Your task to perform on an android device: Set the phone to "Do not disturb". Image 0: 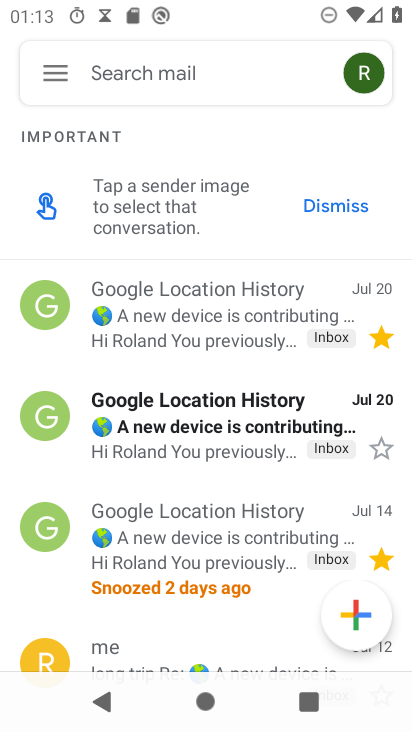
Step 0: press home button
Your task to perform on an android device: Set the phone to "Do not disturb". Image 1: 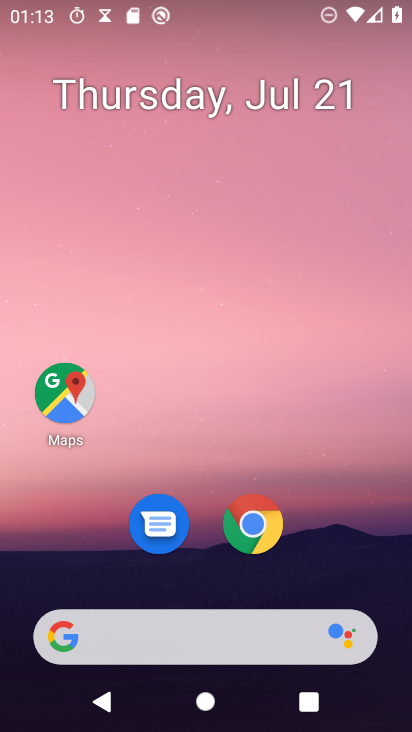
Step 1: drag from (207, 641) to (294, 150)
Your task to perform on an android device: Set the phone to "Do not disturb". Image 2: 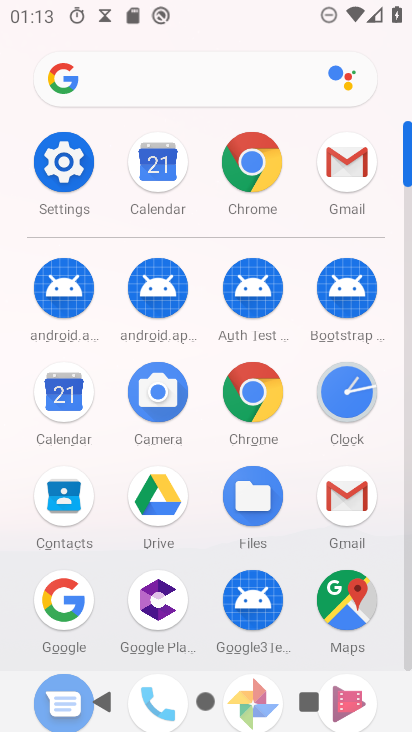
Step 2: click (53, 163)
Your task to perform on an android device: Set the phone to "Do not disturb". Image 3: 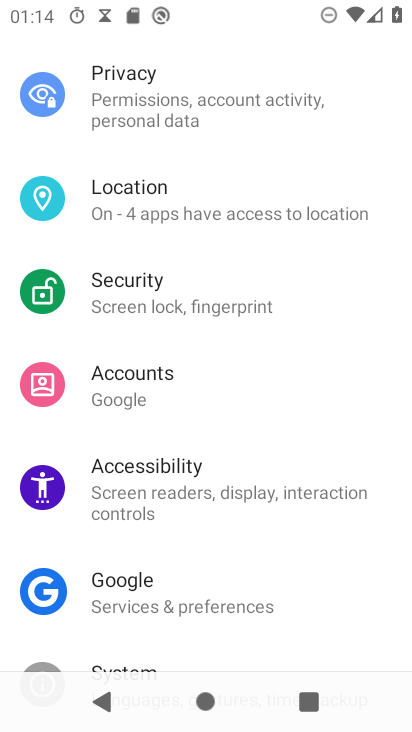
Step 3: drag from (194, 559) to (255, 193)
Your task to perform on an android device: Set the phone to "Do not disturb". Image 4: 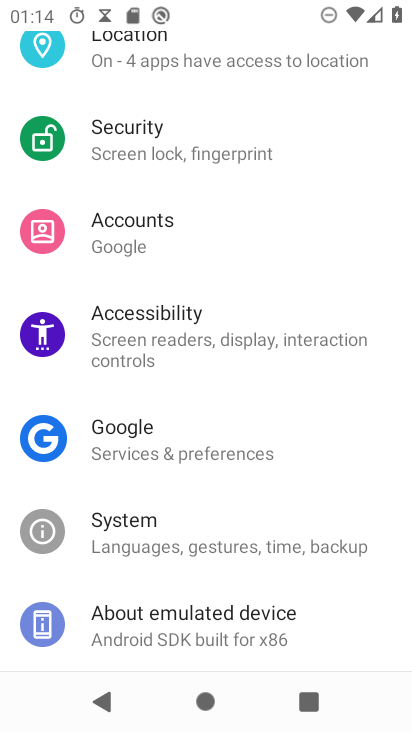
Step 4: drag from (246, 228) to (190, 609)
Your task to perform on an android device: Set the phone to "Do not disturb". Image 5: 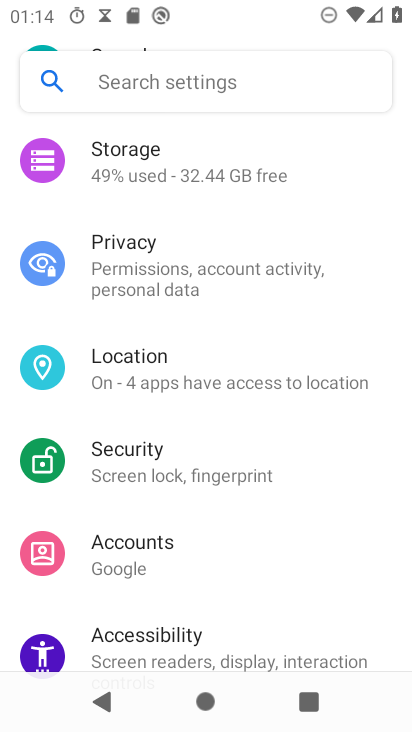
Step 5: drag from (245, 225) to (189, 567)
Your task to perform on an android device: Set the phone to "Do not disturb". Image 6: 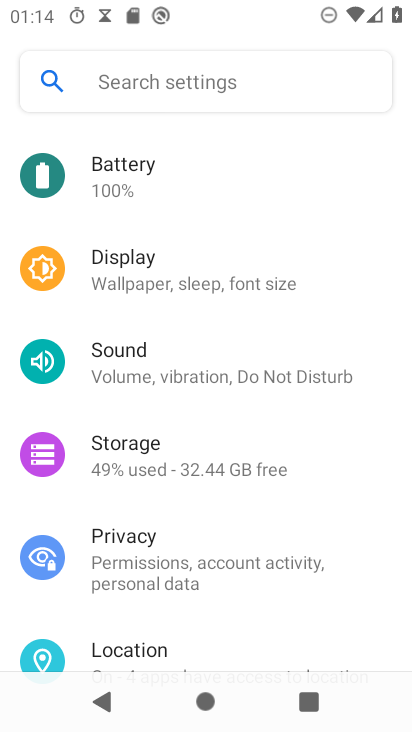
Step 6: click (165, 364)
Your task to perform on an android device: Set the phone to "Do not disturb". Image 7: 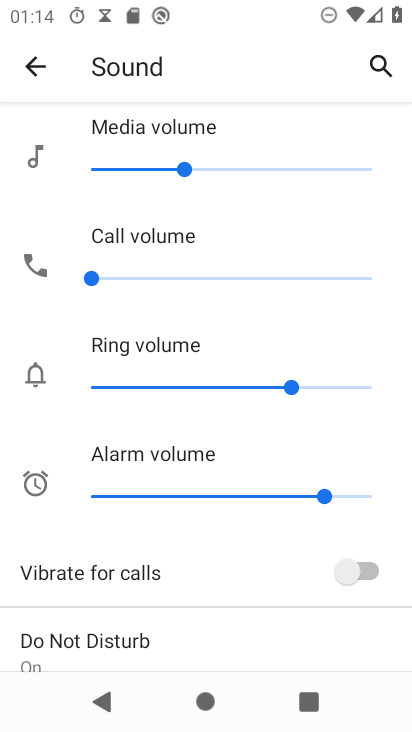
Step 7: drag from (145, 603) to (235, 249)
Your task to perform on an android device: Set the phone to "Do not disturb". Image 8: 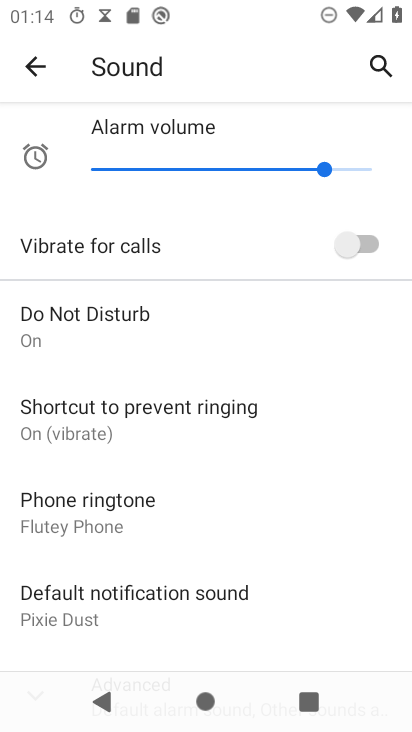
Step 8: click (104, 311)
Your task to perform on an android device: Set the phone to "Do not disturb". Image 9: 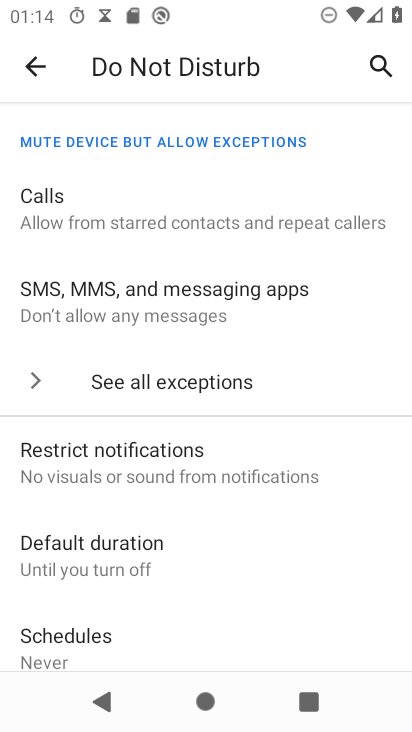
Step 9: task complete